Your task to perform on an android device: see creations saved in the google photos Image 0: 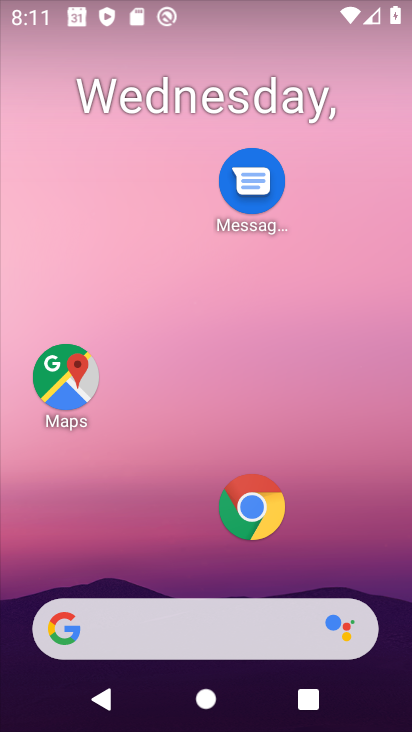
Step 0: drag from (115, 576) to (229, 9)
Your task to perform on an android device: see creations saved in the google photos Image 1: 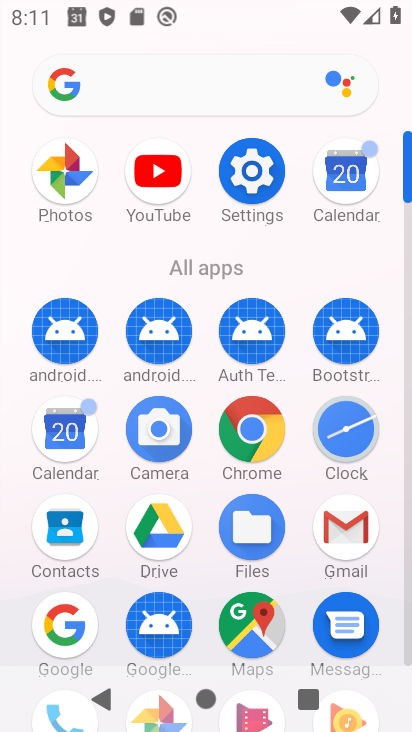
Step 1: drag from (201, 559) to (243, 354)
Your task to perform on an android device: see creations saved in the google photos Image 2: 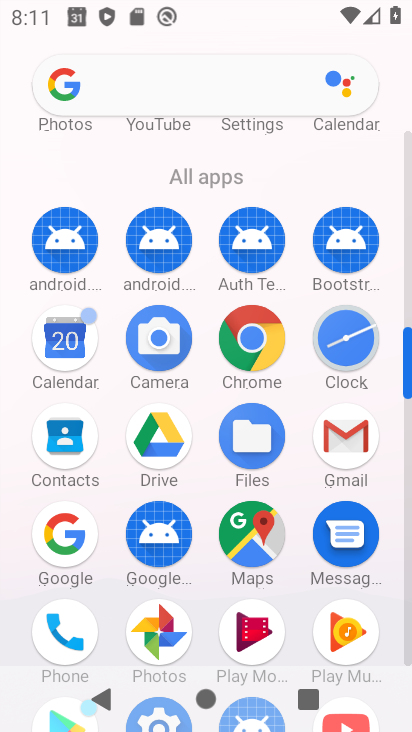
Step 2: click (155, 637)
Your task to perform on an android device: see creations saved in the google photos Image 3: 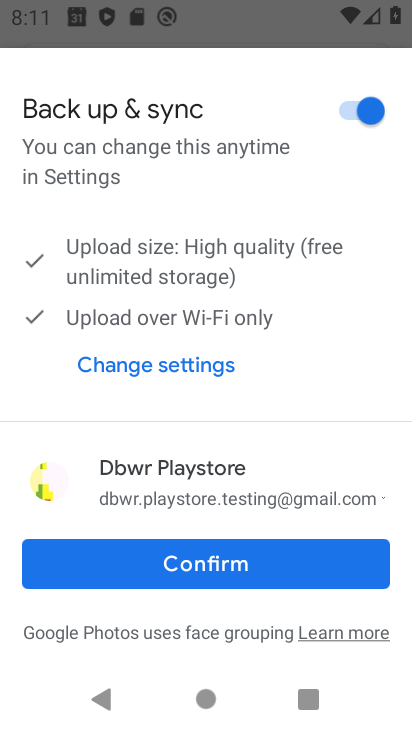
Step 3: click (253, 544)
Your task to perform on an android device: see creations saved in the google photos Image 4: 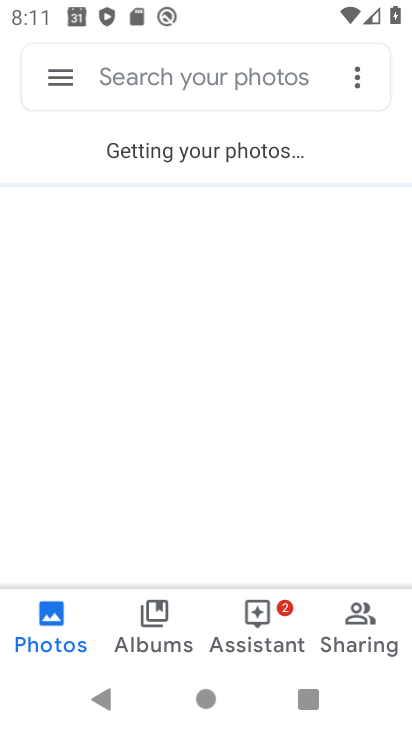
Step 4: click (183, 73)
Your task to perform on an android device: see creations saved in the google photos Image 5: 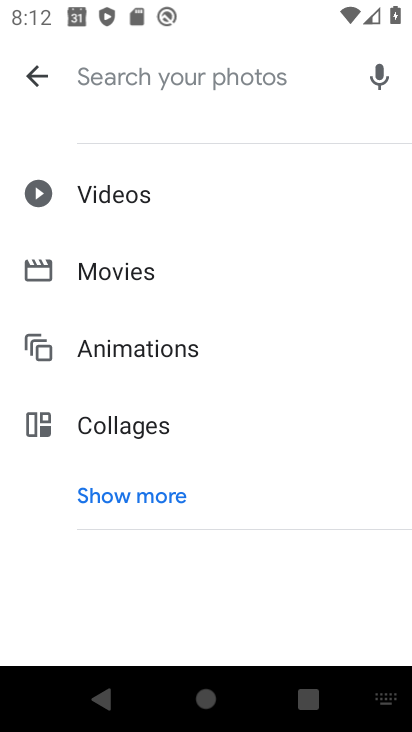
Step 5: click (136, 495)
Your task to perform on an android device: see creations saved in the google photos Image 6: 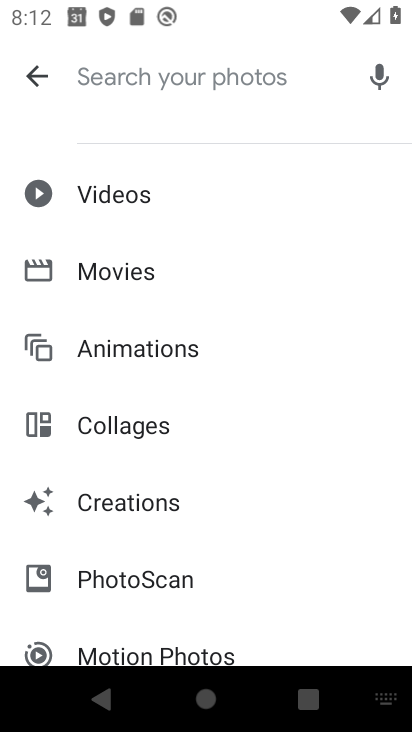
Step 6: click (136, 502)
Your task to perform on an android device: see creations saved in the google photos Image 7: 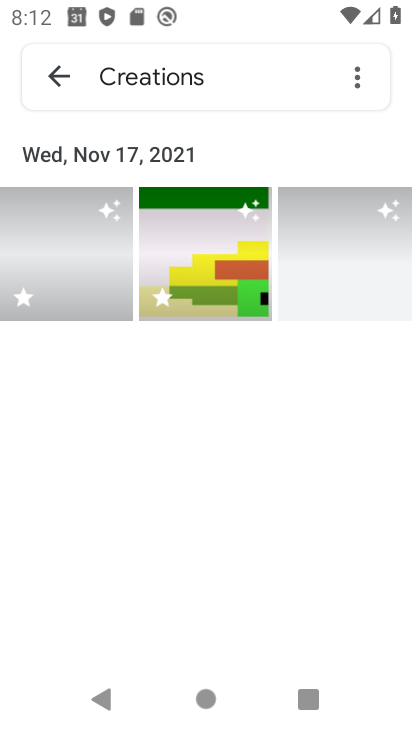
Step 7: task complete